Your task to perform on an android device: Go to CNN.com Image 0: 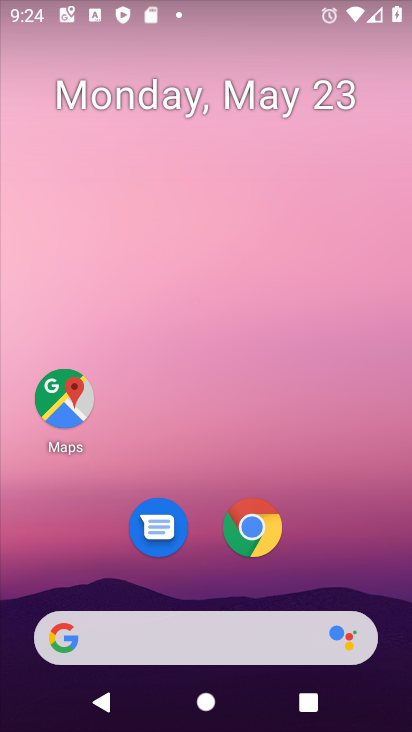
Step 0: drag from (350, 520) to (310, 0)
Your task to perform on an android device: Go to CNN.com Image 1: 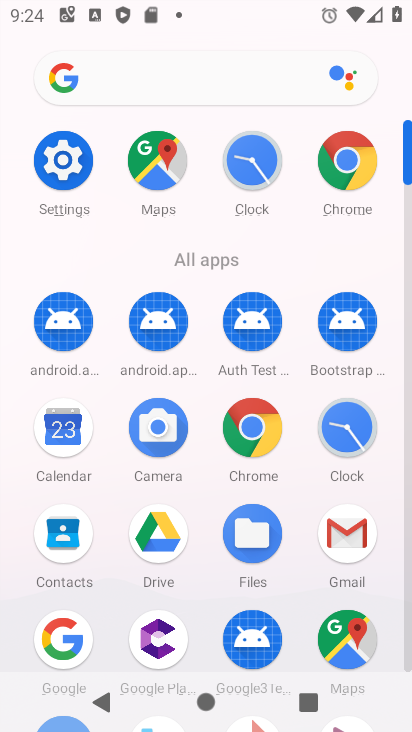
Step 1: drag from (9, 585) to (21, 262)
Your task to perform on an android device: Go to CNN.com Image 2: 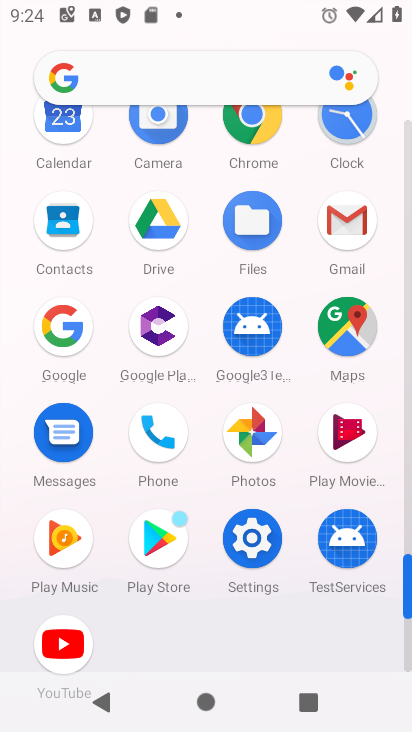
Step 2: click (248, 114)
Your task to perform on an android device: Go to CNN.com Image 3: 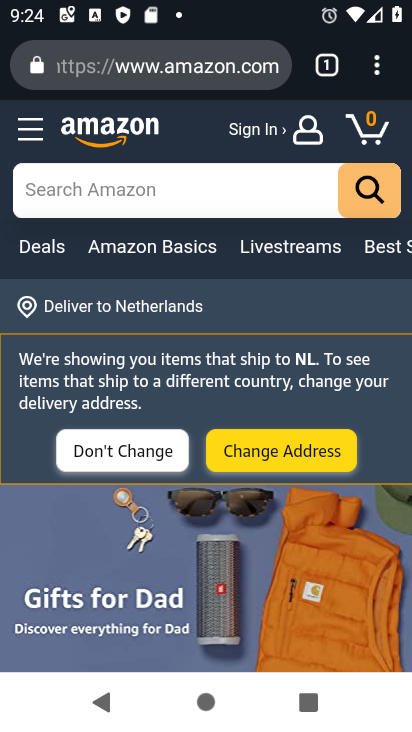
Step 3: click (228, 64)
Your task to perform on an android device: Go to CNN.com Image 4: 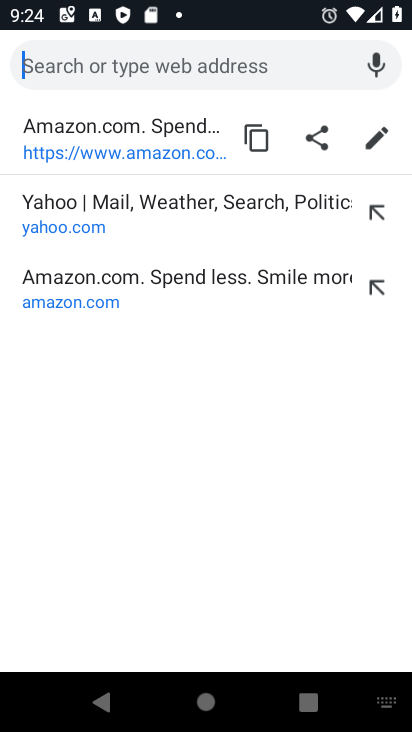
Step 4: type " CNN.com"
Your task to perform on an android device: Go to CNN.com Image 5: 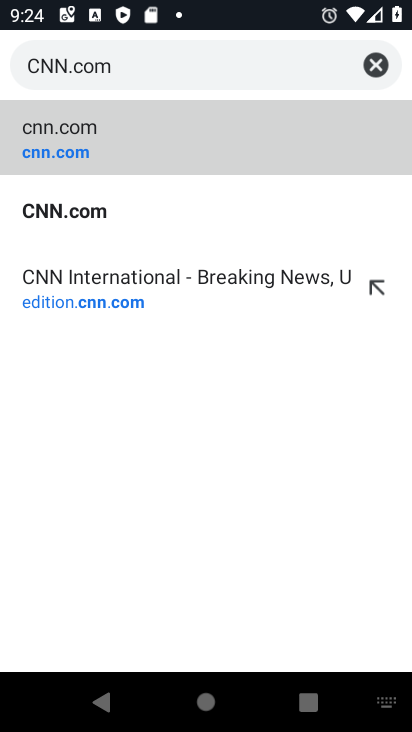
Step 5: click (147, 130)
Your task to perform on an android device: Go to CNN.com Image 6: 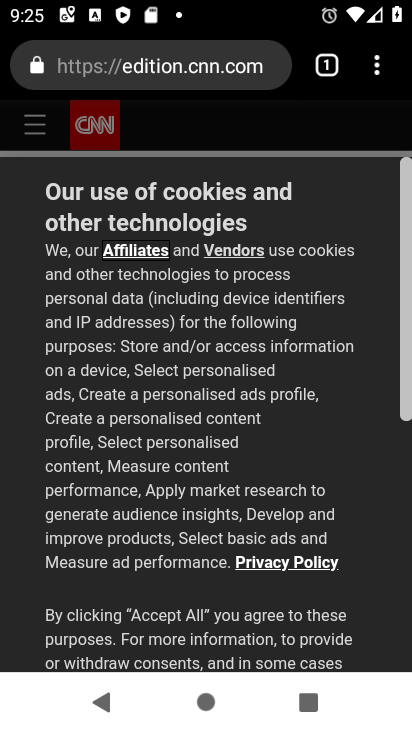
Step 6: task complete